Your task to perform on an android device: turn smart compose on in the gmail app Image 0: 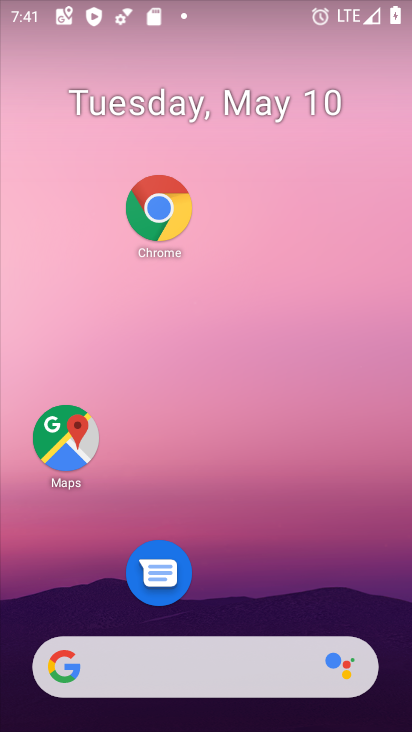
Step 0: drag from (290, 686) to (329, 198)
Your task to perform on an android device: turn smart compose on in the gmail app Image 1: 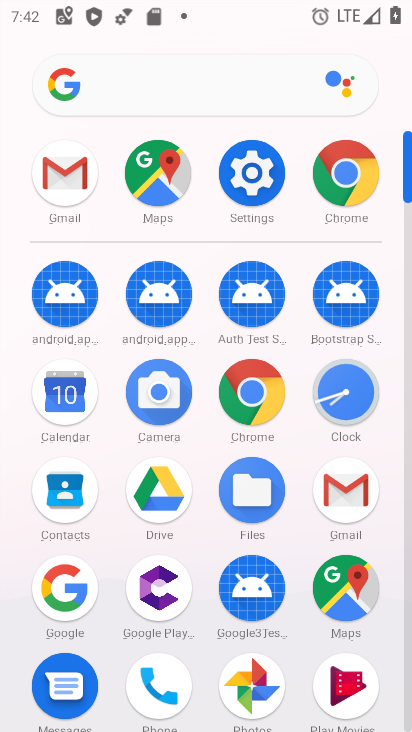
Step 1: click (79, 181)
Your task to perform on an android device: turn smart compose on in the gmail app Image 2: 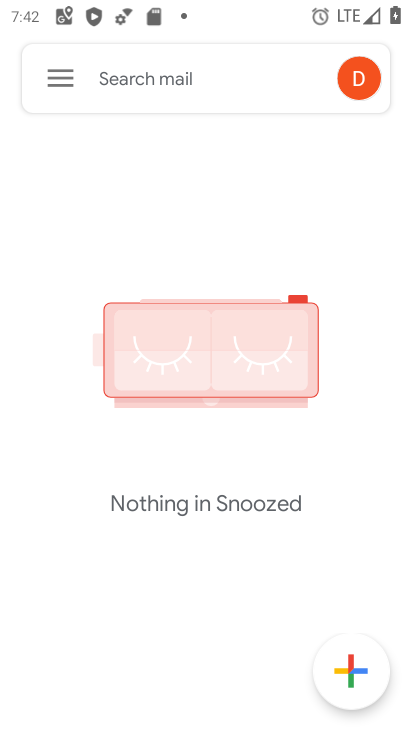
Step 2: click (74, 75)
Your task to perform on an android device: turn smart compose on in the gmail app Image 3: 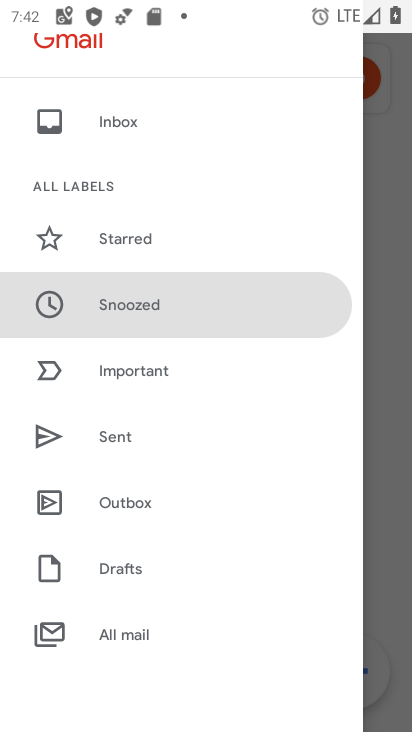
Step 3: drag from (135, 632) to (209, 389)
Your task to perform on an android device: turn smart compose on in the gmail app Image 4: 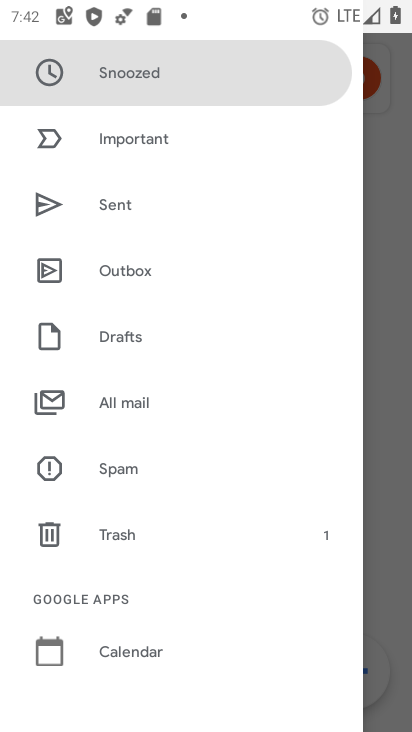
Step 4: drag from (132, 602) to (260, 329)
Your task to perform on an android device: turn smart compose on in the gmail app Image 5: 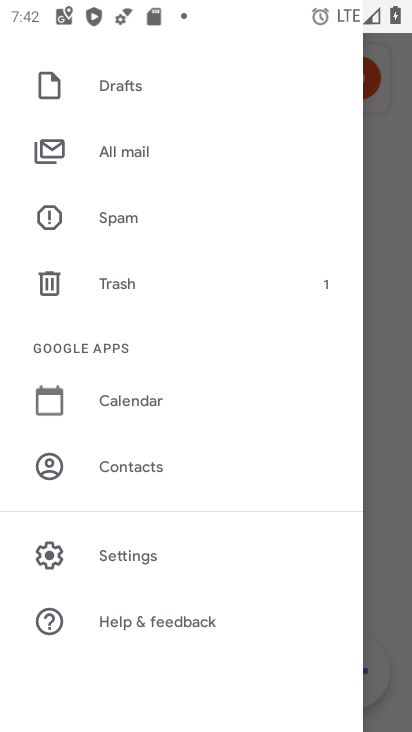
Step 5: click (174, 553)
Your task to perform on an android device: turn smart compose on in the gmail app Image 6: 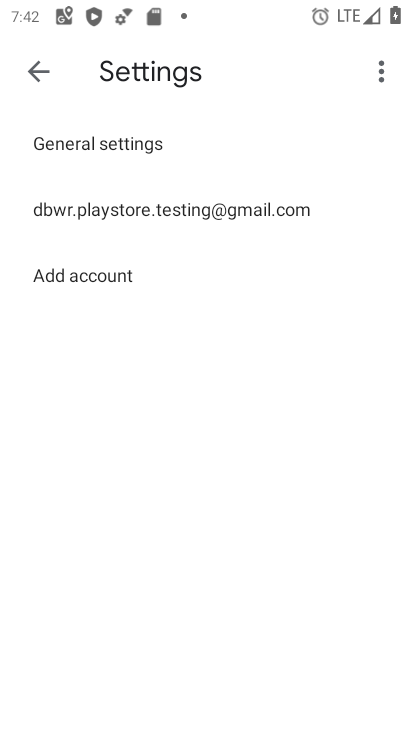
Step 6: click (156, 207)
Your task to perform on an android device: turn smart compose on in the gmail app Image 7: 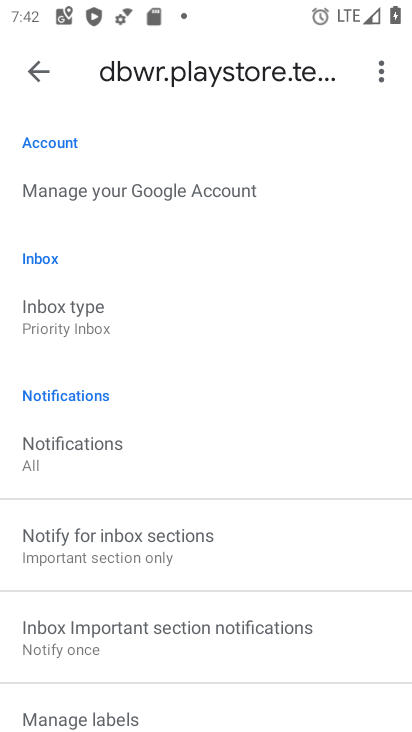
Step 7: drag from (129, 558) to (265, 114)
Your task to perform on an android device: turn smart compose on in the gmail app Image 8: 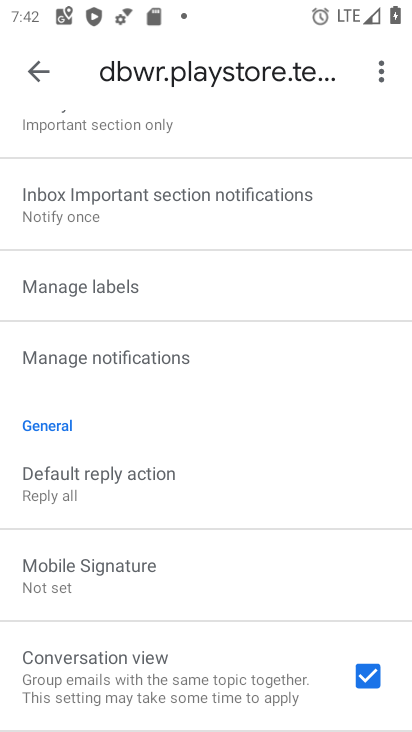
Step 8: drag from (172, 564) to (245, 332)
Your task to perform on an android device: turn smart compose on in the gmail app Image 9: 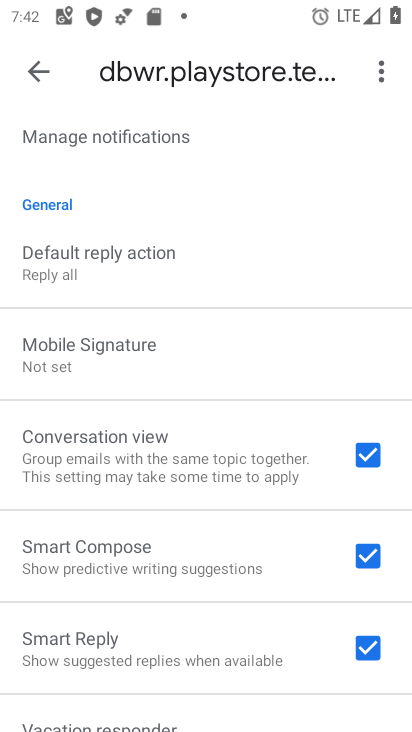
Step 9: click (360, 553)
Your task to perform on an android device: turn smart compose on in the gmail app Image 10: 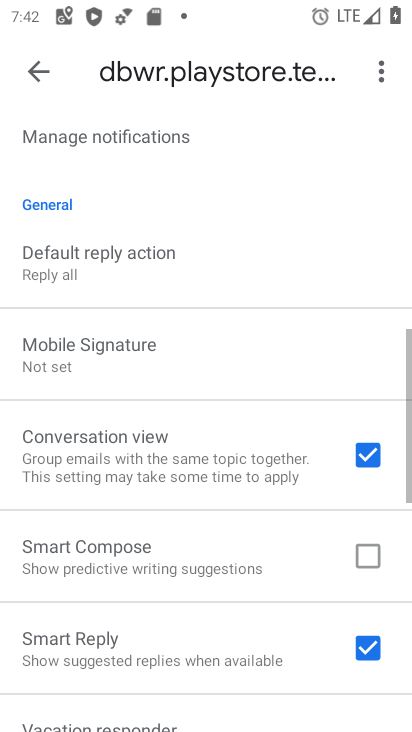
Step 10: click (359, 557)
Your task to perform on an android device: turn smart compose on in the gmail app Image 11: 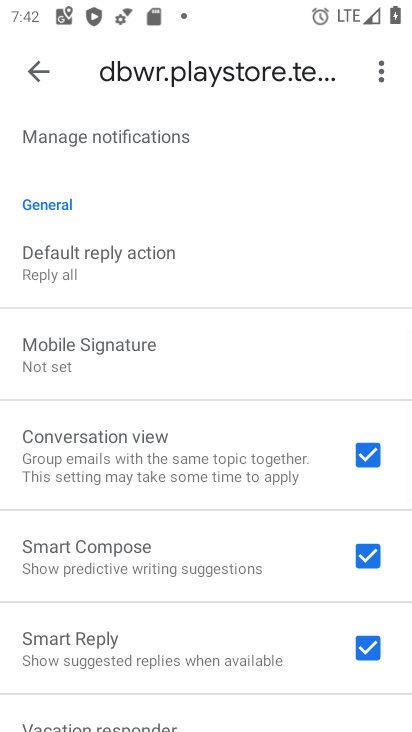
Step 11: task complete